Your task to perform on an android device: Toggle the flashlight Image 0: 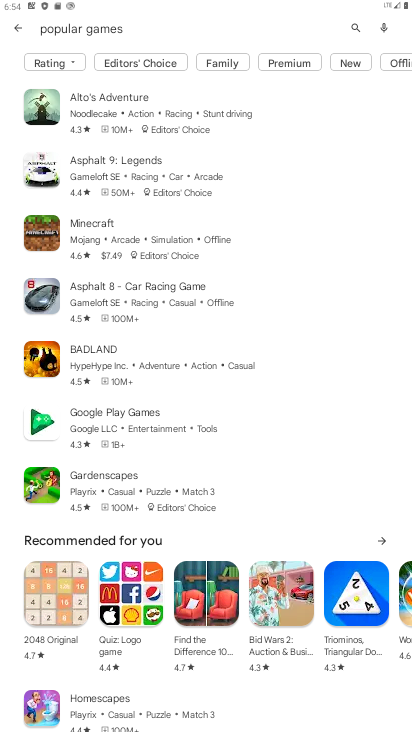
Step 0: press home button
Your task to perform on an android device: Toggle the flashlight Image 1: 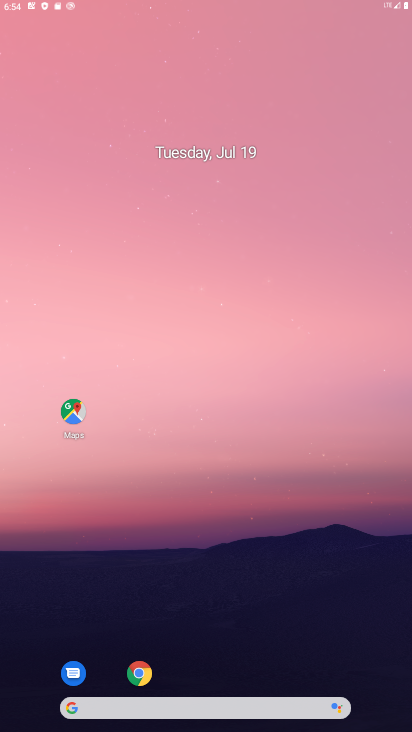
Step 1: drag from (396, 697) to (285, 43)
Your task to perform on an android device: Toggle the flashlight Image 2: 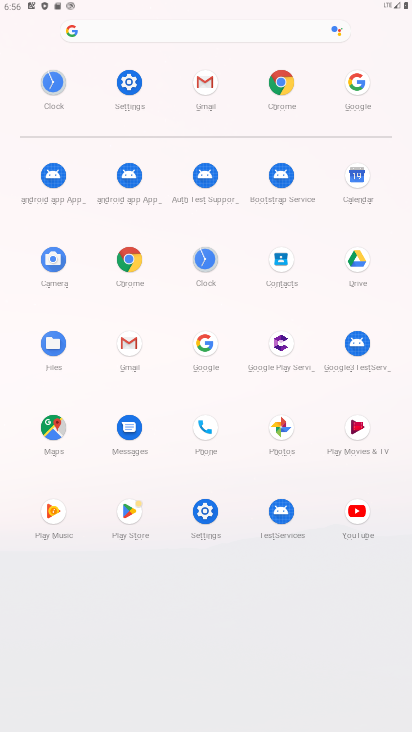
Step 2: click (197, 519)
Your task to perform on an android device: Toggle the flashlight Image 3: 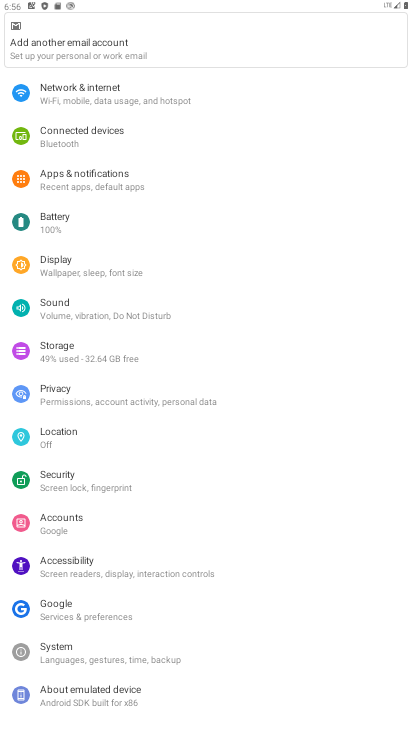
Step 3: task complete